Your task to perform on an android device: turn on javascript in the chrome app Image 0: 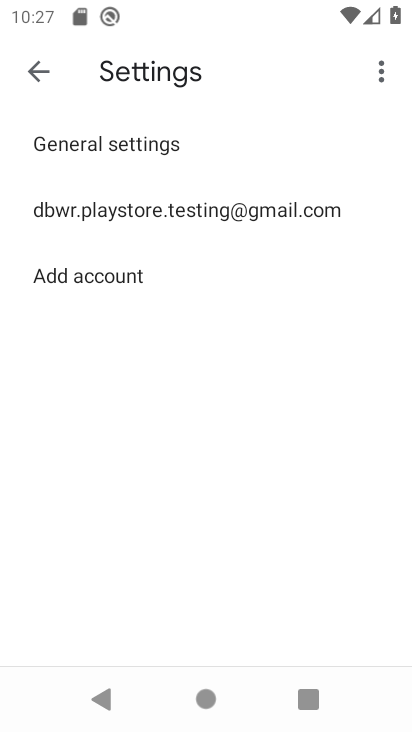
Step 0: press home button
Your task to perform on an android device: turn on javascript in the chrome app Image 1: 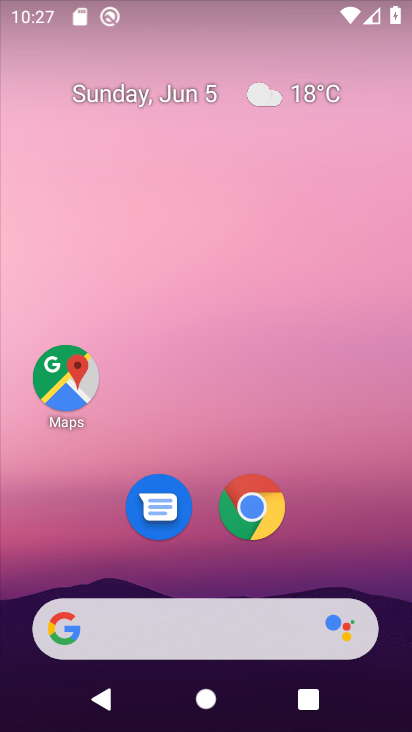
Step 1: click (255, 517)
Your task to perform on an android device: turn on javascript in the chrome app Image 2: 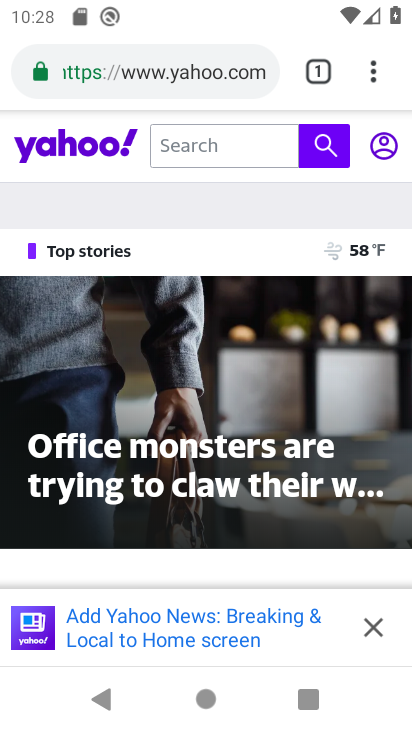
Step 2: click (363, 68)
Your task to perform on an android device: turn on javascript in the chrome app Image 3: 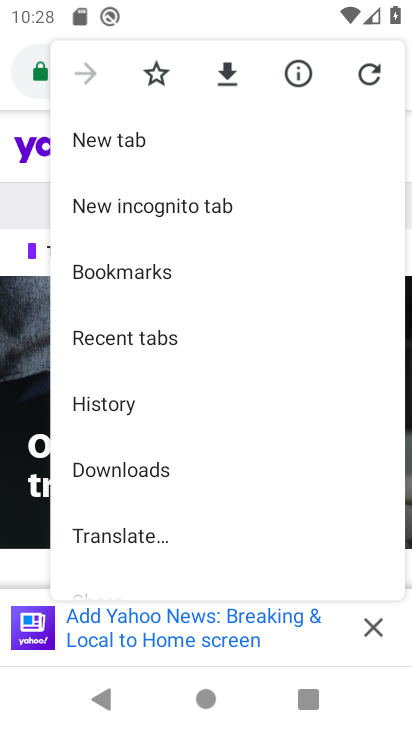
Step 3: drag from (148, 498) to (153, 368)
Your task to perform on an android device: turn on javascript in the chrome app Image 4: 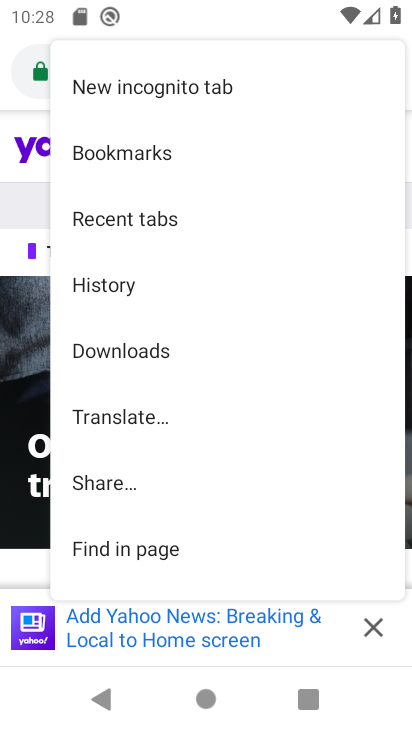
Step 4: drag from (157, 563) to (185, 103)
Your task to perform on an android device: turn on javascript in the chrome app Image 5: 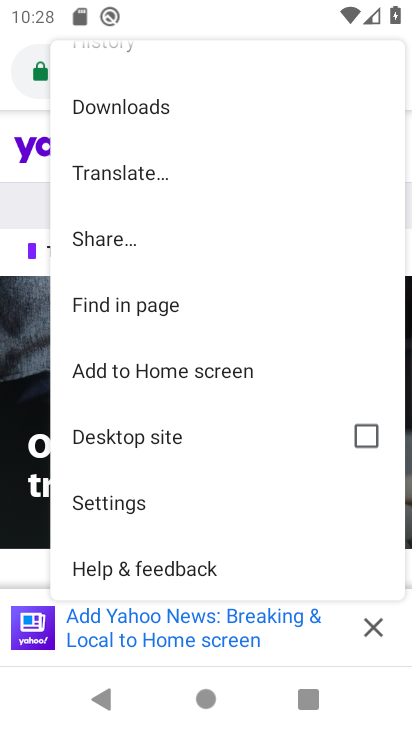
Step 5: click (129, 510)
Your task to perform on an android device: turn on javascript in the chrome app Image 6: 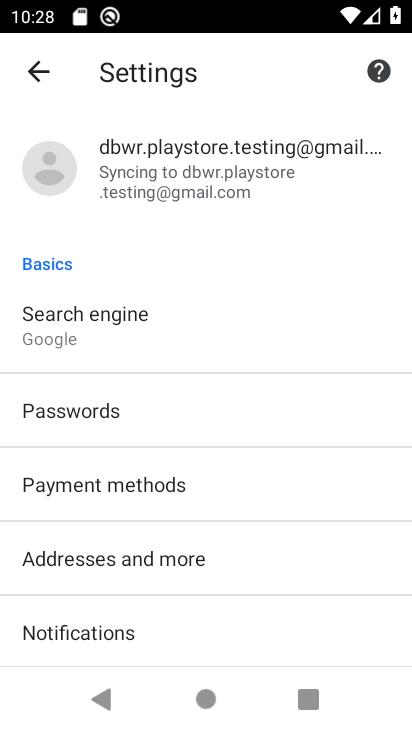
Step 6: drag from (153, 584) to (196, 141)
Your task to perform on an android device: turn on javascript in the chrome app Image 7: 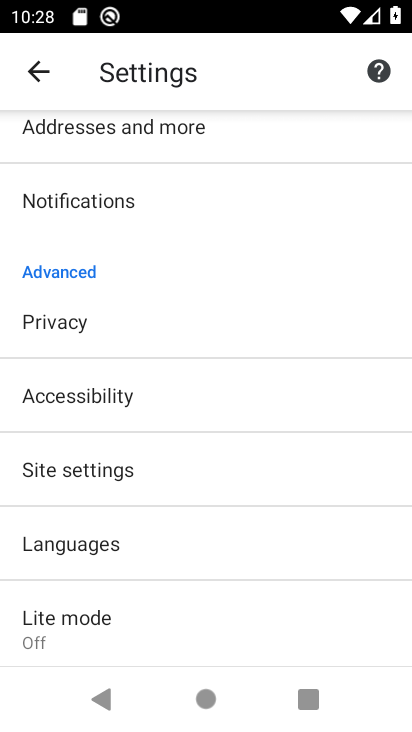
Step 7: click (105, 459)
Your task to perform on an android device: turn on javascript in the chrome app Image 8: 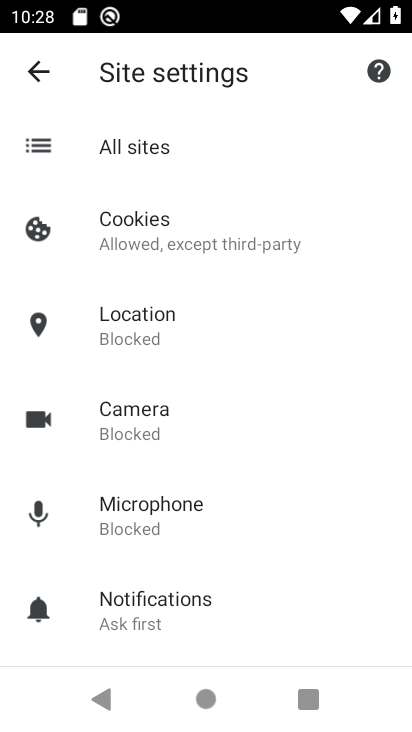
Step 8: drag from (184, 610) to (226, 382)
Your task to perform on an android device: turn on javascript in the chrome app Image 9: 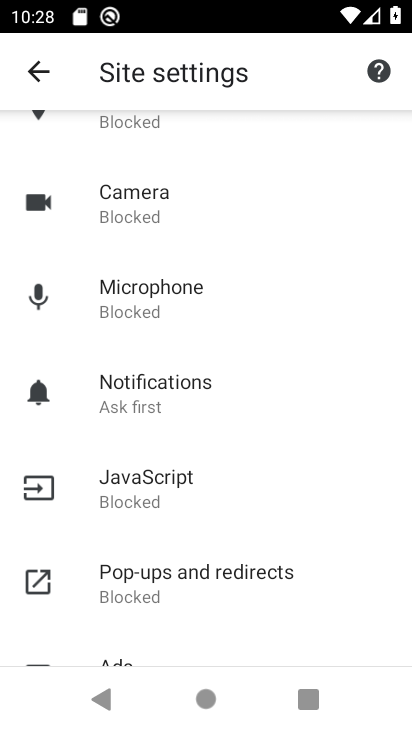
Step 9: click (180, 489)
Your task to perform on an android device: turn on javascript in the chrome app Image 10: 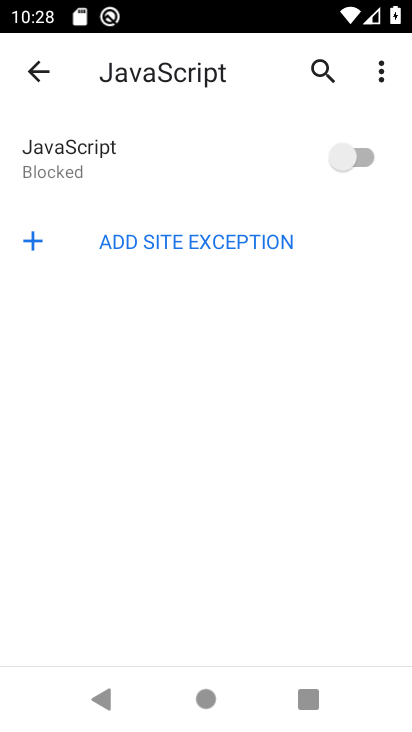
Step 10: click (396, 149)
Your task to perform on an android device: turn on javascript in the chrome app Image 11: 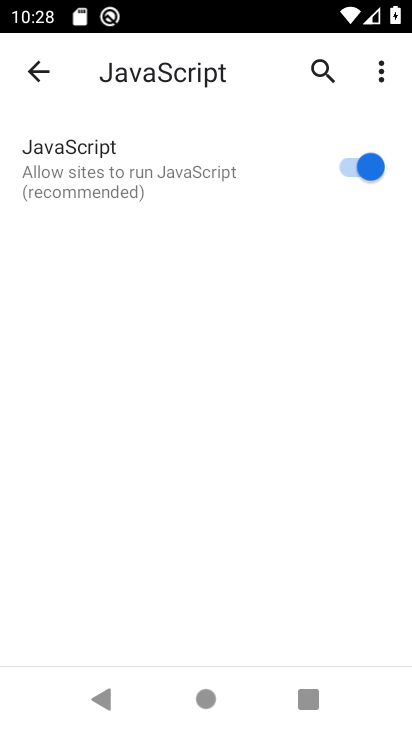
Step 11: task complete